Your task to perform on an android device: turn off wifi Image 0: 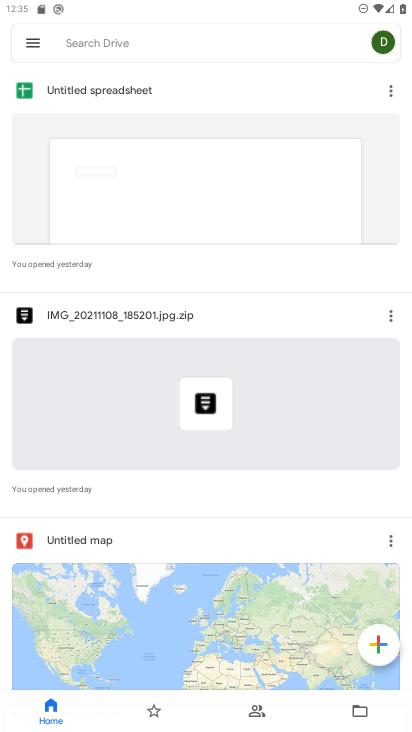
Step 0: press home button
Your task to perform on an android device: turn off wifi Image 1: 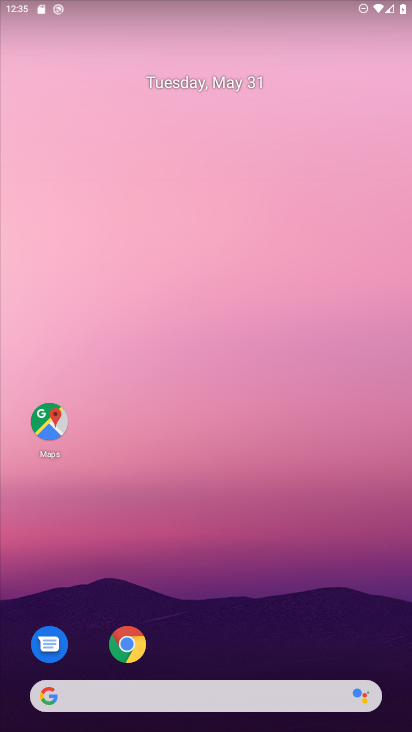
Step 1: drag from (270, 294) to (4, 685)
Your task to perform on an android device: turn off wifi Image 2: 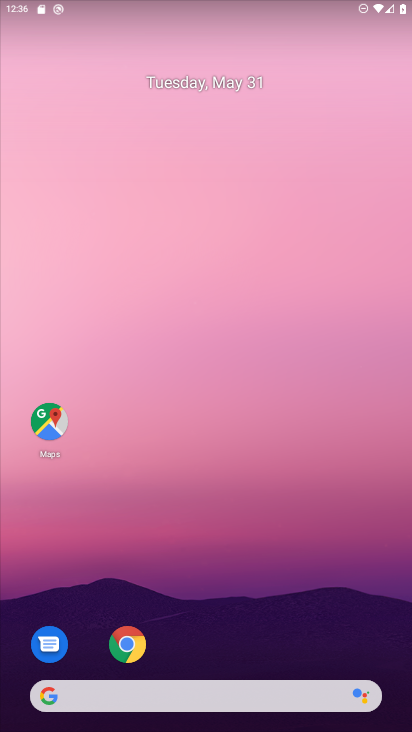
Step 2: drag from (280, 241) to (218, 5)
Your task to perform on an android device: turn off wifi Image 3: 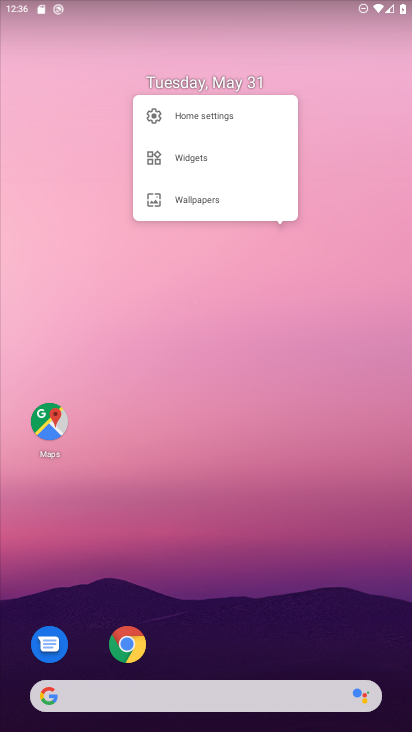
Step 3: drag from (189, 602) to (277, 174)
Your task to perform on an android device: turn off wifi Image 4: 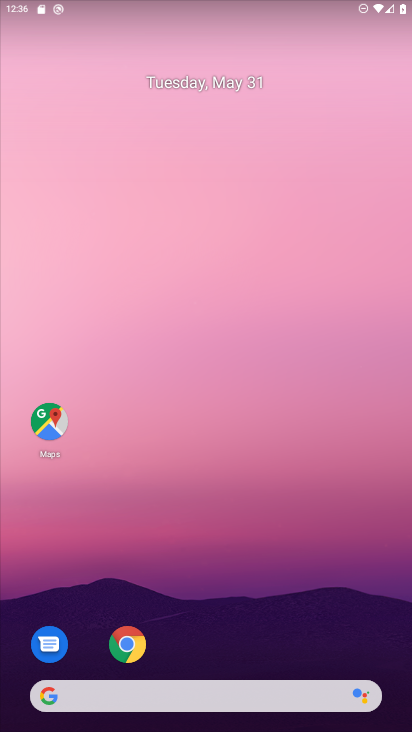
Step 4: click (297, 21)
Your task to perform on an android device: turn off wifi Image 5: 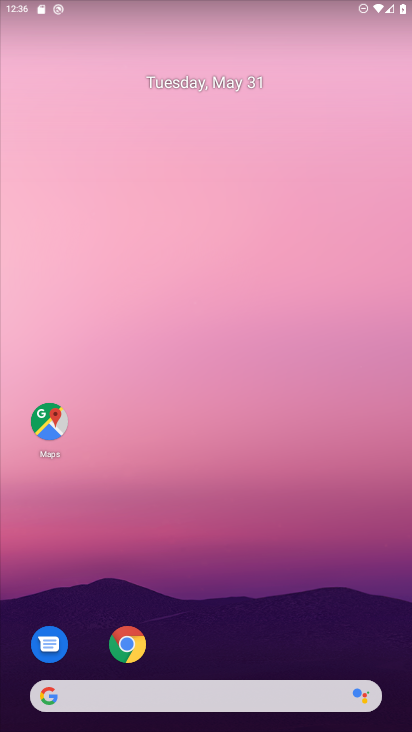
Step 5: click (216, 556)
Your task to perform on an android device: turn off wifi Image 6: 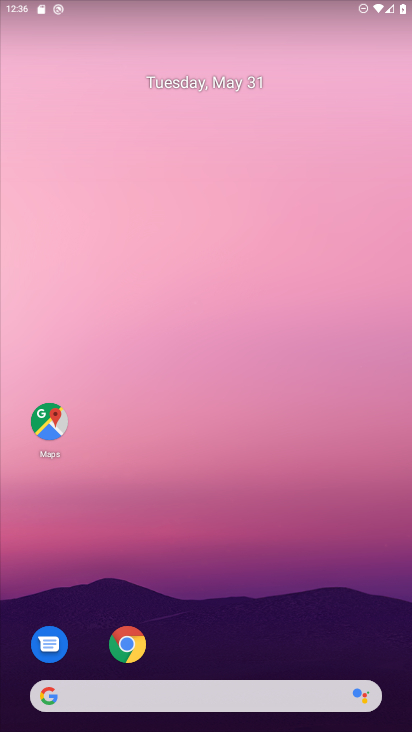
Step 6: drag from (212, 464) to (291, 29)
Your task to perform on an android device: turn off wifi Image 7: 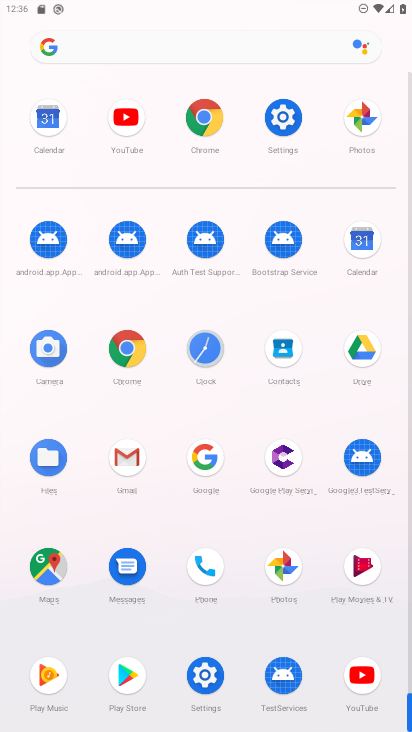
Step 7: click (272, 116)
Your task to perform on an android device: turn off wifi Image 8: 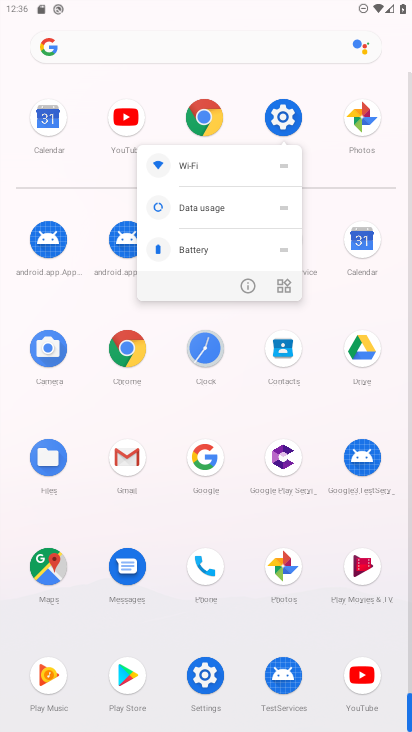
Step 8: click (247, 295)
Your task to perform on an android device: turn off wifi Image 9: 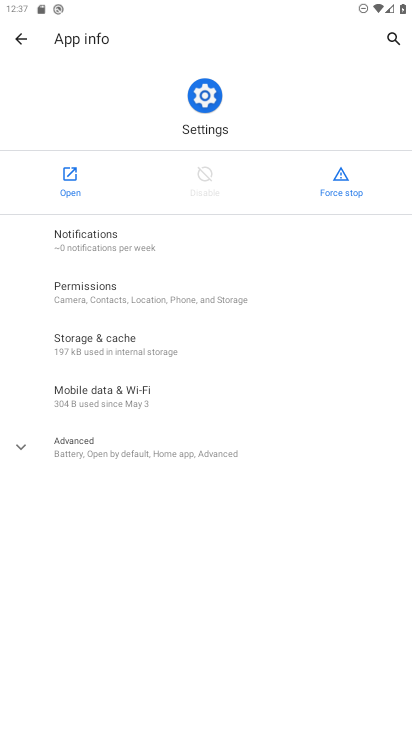
Step 9: click (69, 173)
Your task to perform on an android device: turn off wifi Image 10: 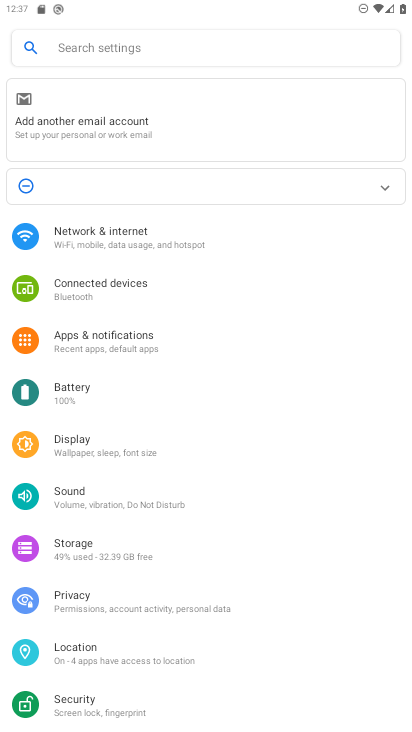
Step 10: click (113, 233)
Your task to perform on an android device: turn off wifi Image 11: 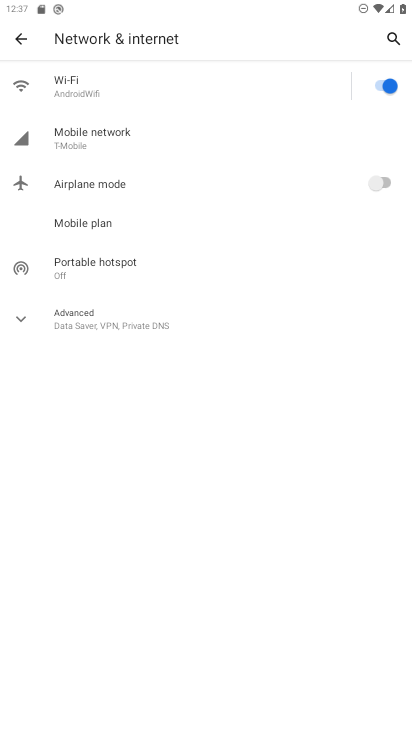
Step 11: click (387, 79)
Your task to perform on an android device: turn off wifi Image 12: 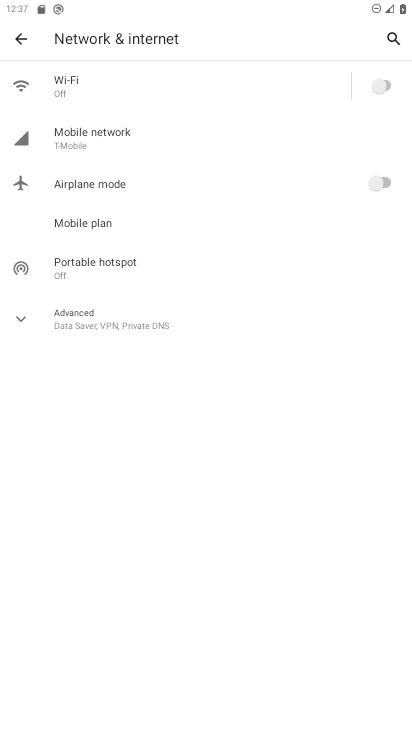
Step 12: task complete